Your task to perform on an android device: Open calendar and show me the first week of next month Image 0: 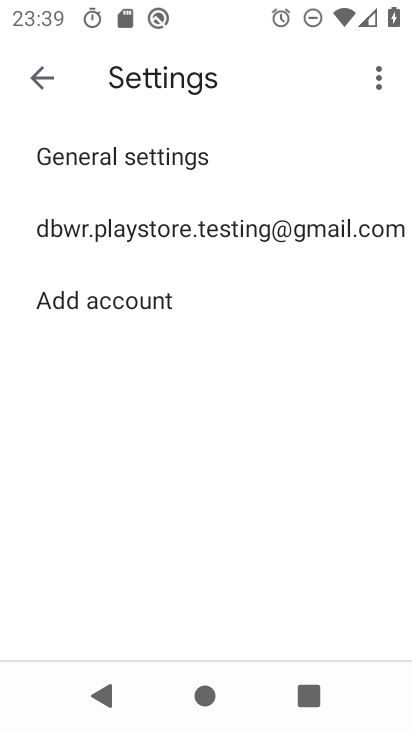
Step 0: press home button
Your task to perform on an android device: Open calendar and show me the first week of next month Image 1: 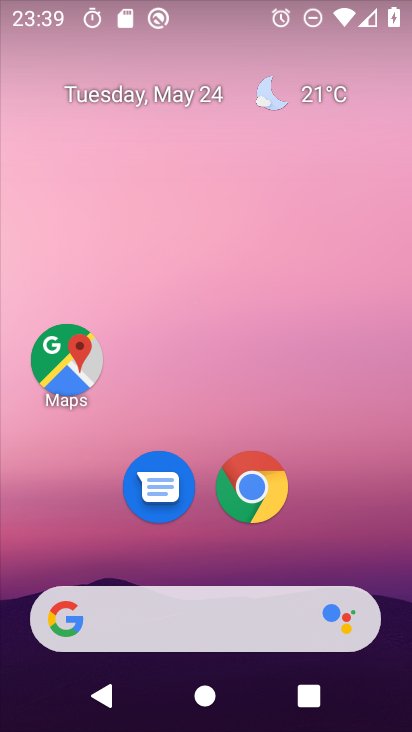
Step 1: drag from (359, 487) to (336, 11)
Your task to perform on an android device: Open calendar and show me the first week of next month Image 2: 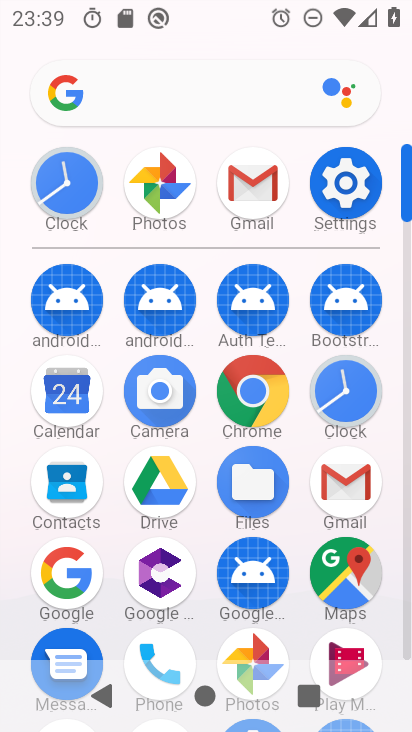
Step 2: click (68, 399)
Your task to perform on an android device: Open calendar and show me the first week of next month Image 3: 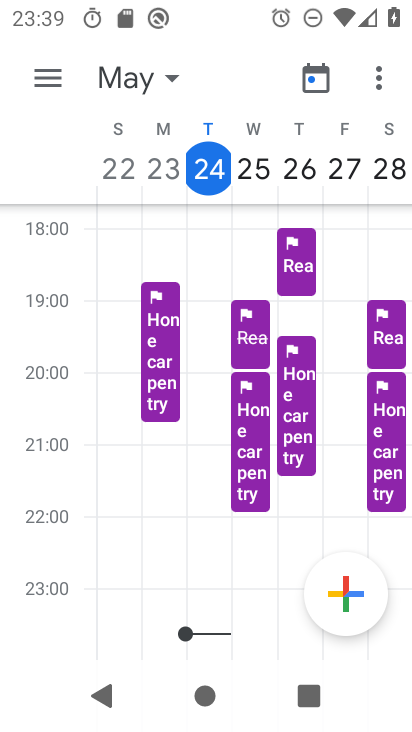
Step 3: task complete